Your task to perform on an android device: turn off priority inbox in the gmail app Image 0: 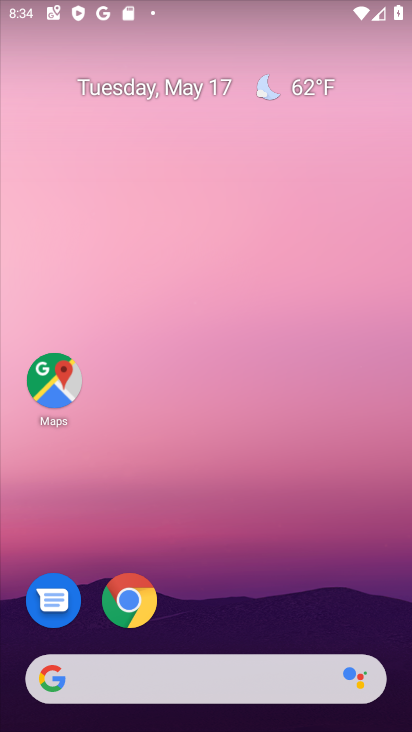
Step 0: drag from (217, 699) to (205, 191)
Your task to perform on an android device: turn off priority inbox in the gmail app Image 1: 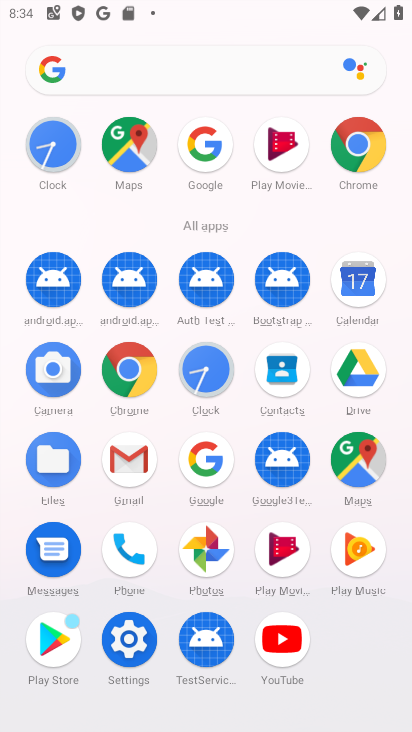
Step 1: click (133, 453)
Your task to perform on an android device: turn off priority inbox in the gmail app Image 2: 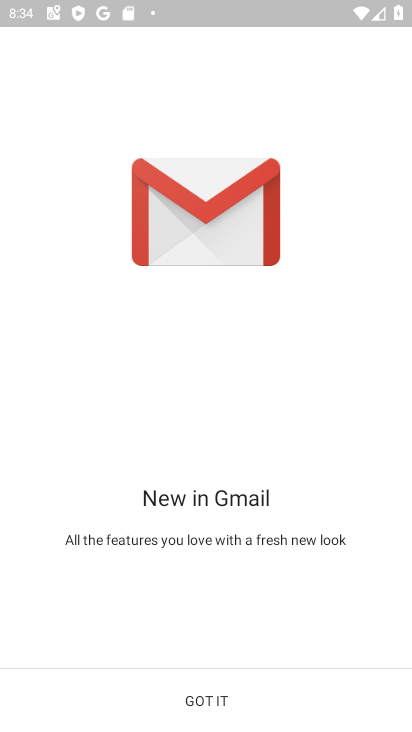
Step 2: click (202, 691)
Your task to perform on an android device: turn off priority inbox in the gmail app Image 3: 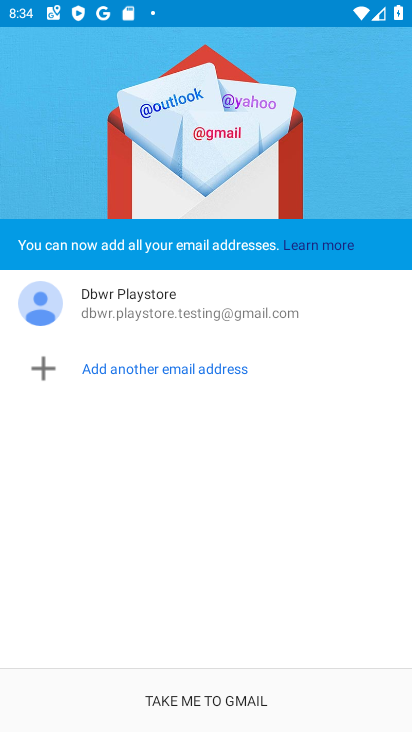
Step 3: click (189, 699)
Your task to perform on an android device: turn off priority inbox in the gmail app Image 4: 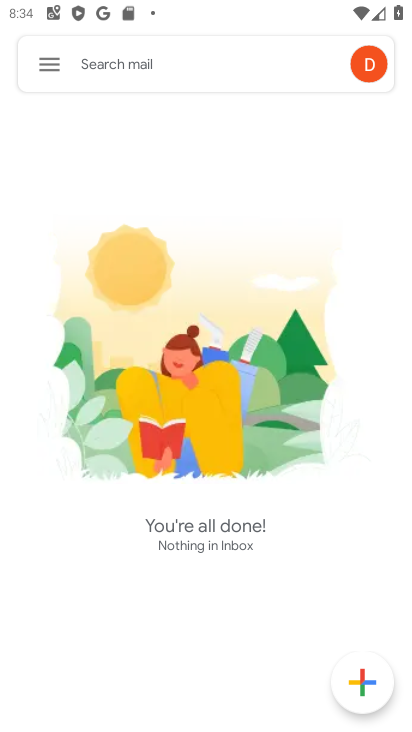
Step 4: click (49, 68)
Your task to perform on an android device: turn off priority inbox in the gmail app Image 5: 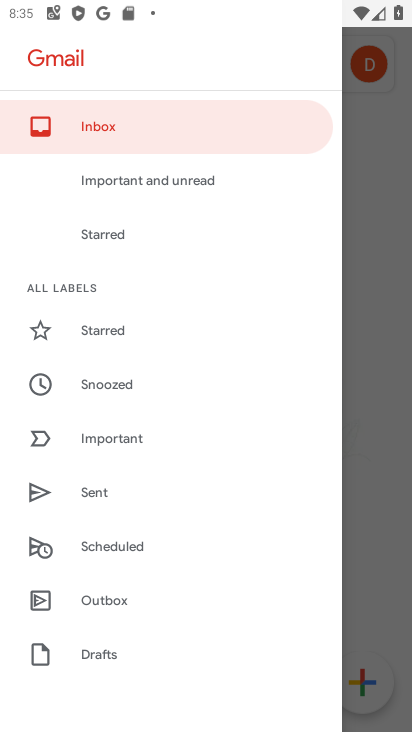
Step 5: drag from (192, 661) to (192, 209)
Your task to perform on an android device: turn off priority inbox in the gmail app Image 6: 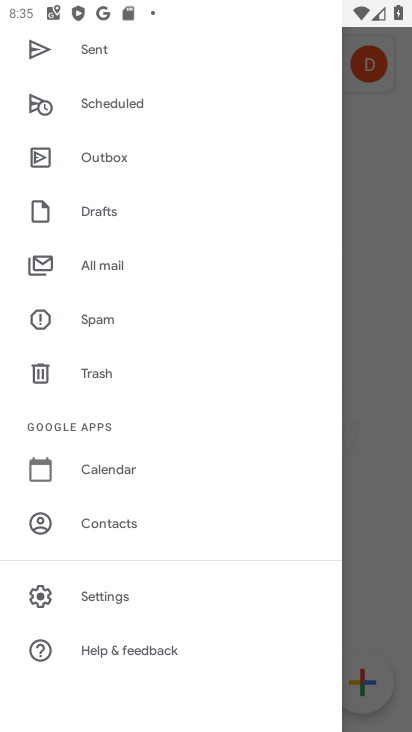
Step 6: click (108, 593)
Your task to perform on an android device: turn off priority inbox in the gmail app Image 7: 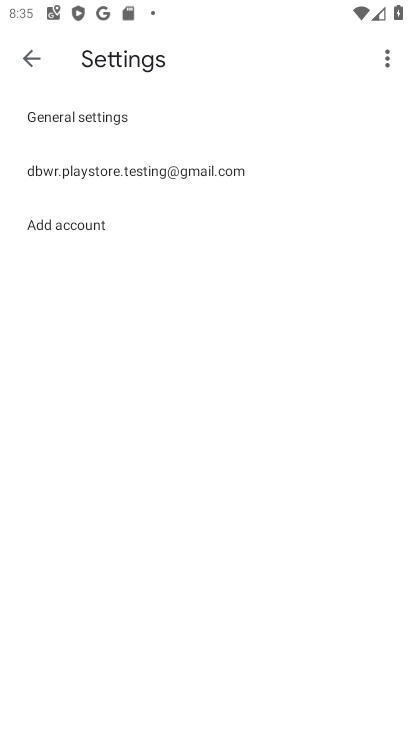
Step 7: click (157, 167)
Your task to perform on an android device: turn off priority inbox in the gmail app Image 8: 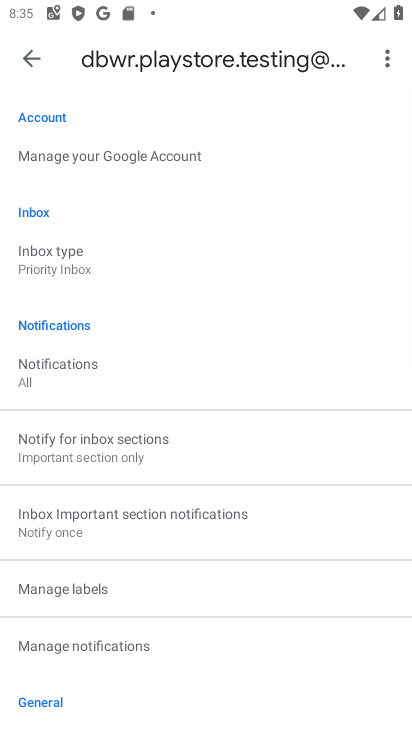
Step 8: drag from (147, 608) to (160, 288)
Your task to perform on an android device: turn off priority inbox in the gmail app Image 9: 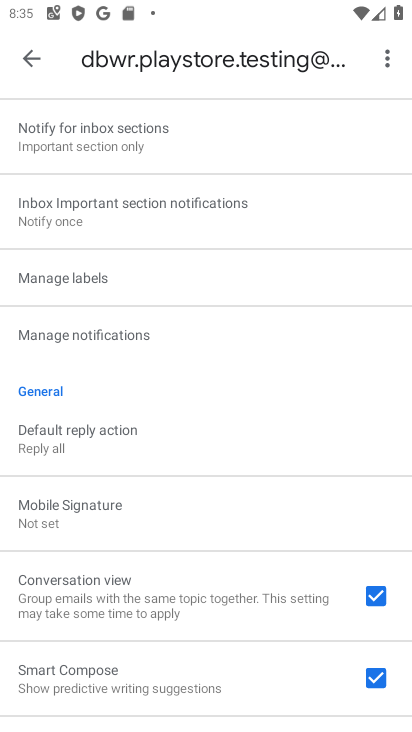
Step 9: drag from (214, 226) to (222, 606)
Your task to perform on an android device: turn off priority inbox in the gmail app Image 10: 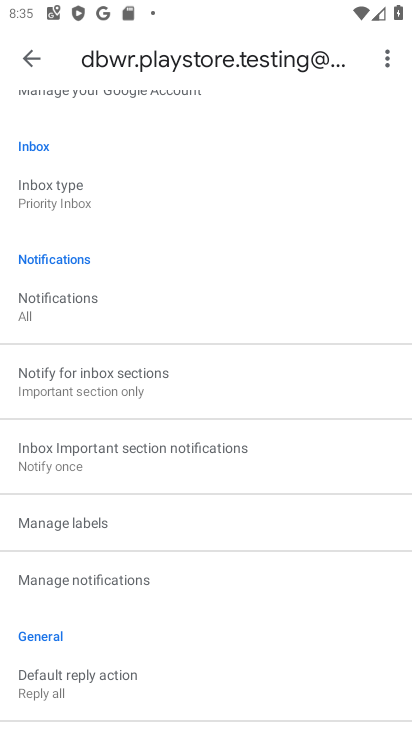
Step 10: click (38, 177)
Your task to perform on an android device: turn off priority inbox in the gmail app Image 11: 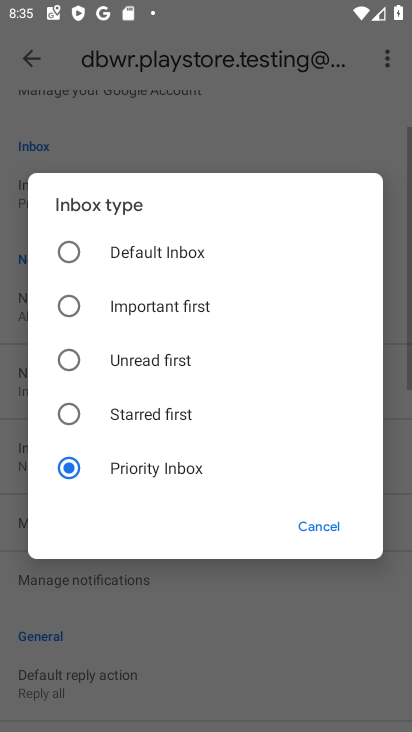
Step 11: click (63, 256)
Your task to perform on an android device: turn off priority inbox in the gmail app Image 12: 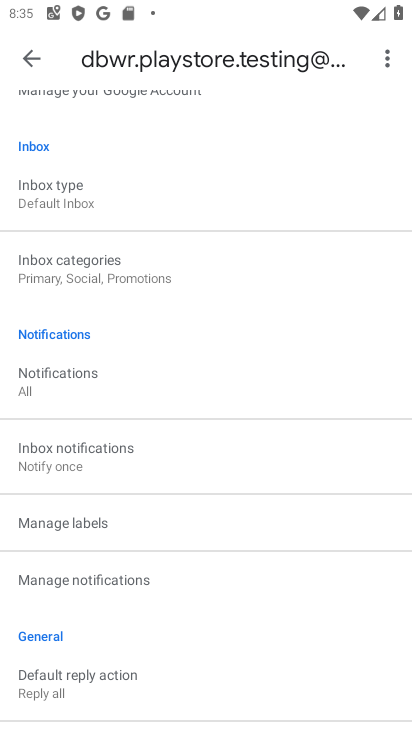
Step 12: task complete